Your task to perform on an android device: What's the latest video from GameSpot Trailers? Image 0: 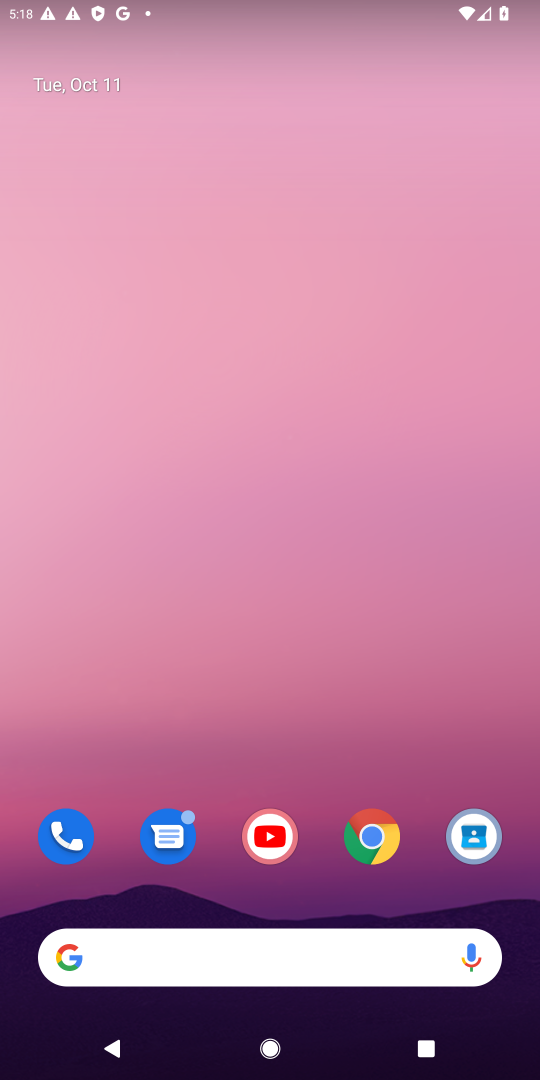
Step 0: click (378, 828)
Your task to perform on an android device: What's the latest video from GameSpot Trailers? Image 1: 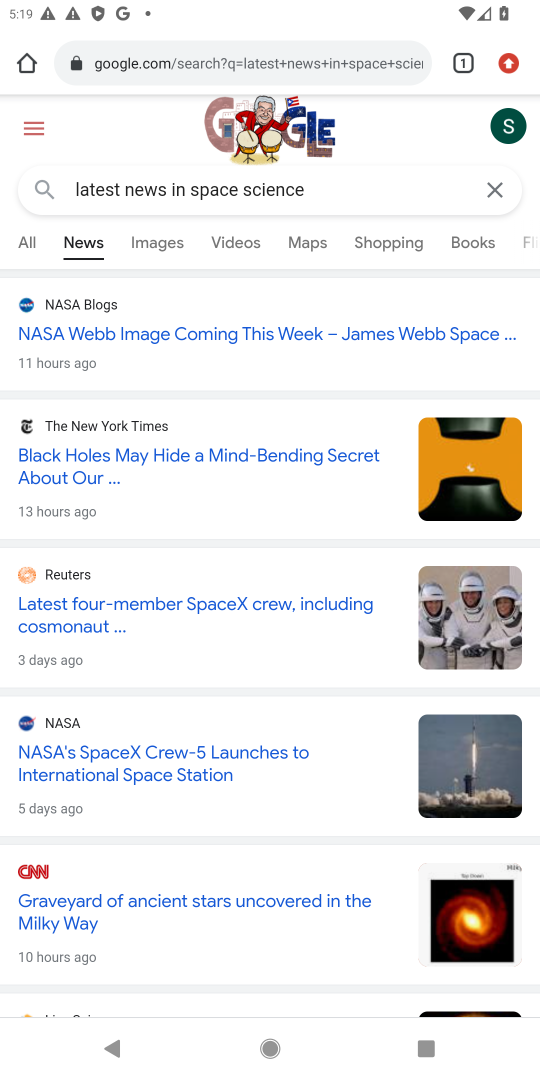
Step 1: click (364, 63)
Your task to perform on an android device: What's the latest video from GameSpot Trailers? Image 2: 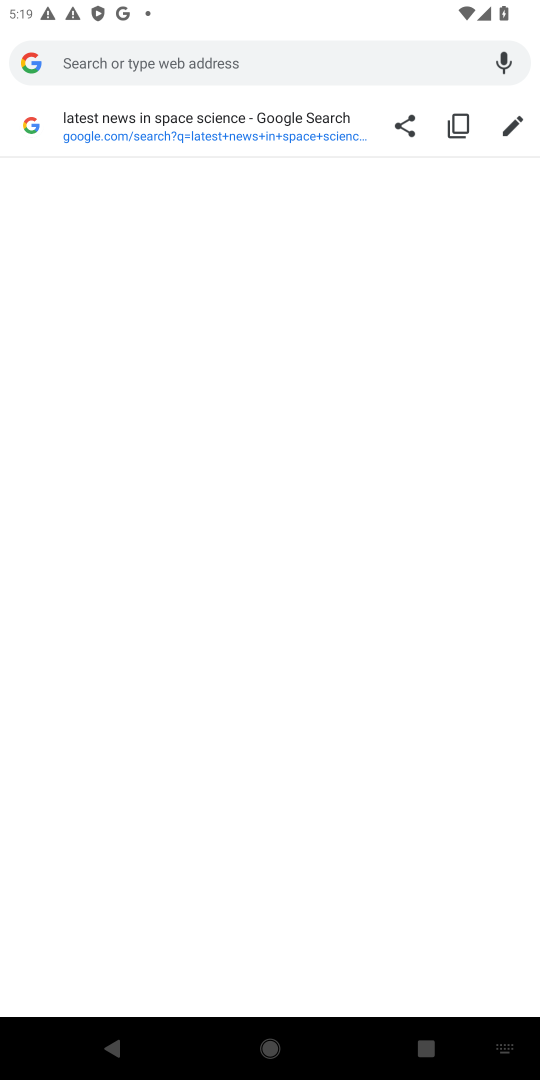
Step 2: type "latest video from GameSpot Trailers"
Your task to perform on an android device: What's the latest video from GameSpot Trailers? Image 3: 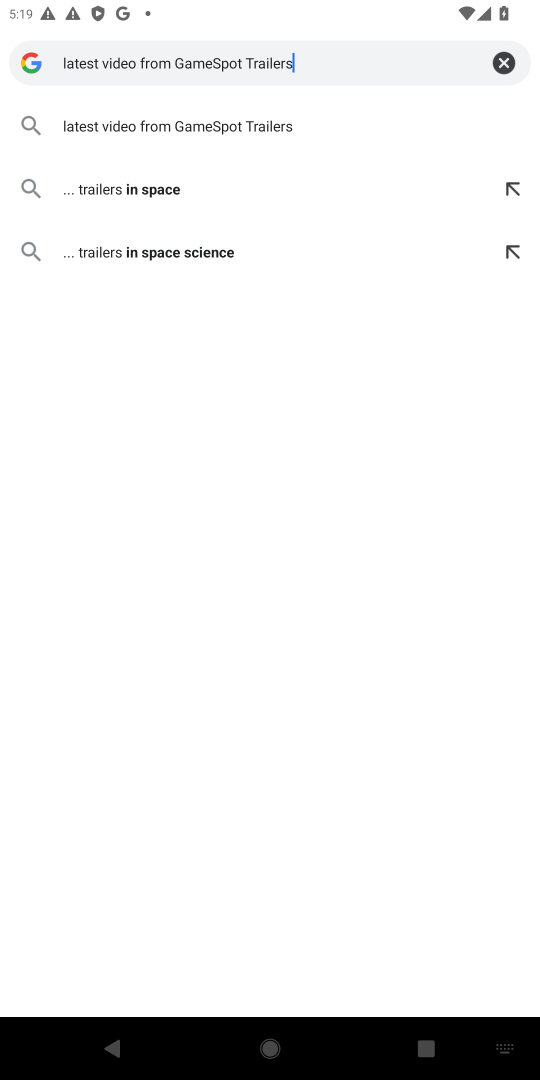
Step 3: click (253, 127)
Your task to perform on an android device: What's the latest video from GameSpot Trailers? Image 4: 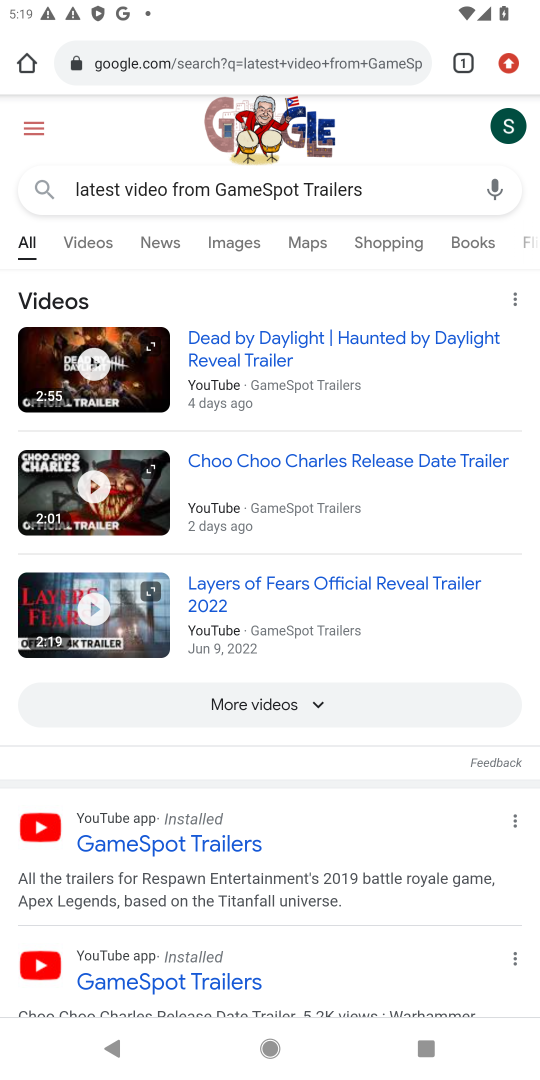
Step 4: click (97, 368)
Your task to perform on an android device: What's the latest video from GameSpot Trailers? Image 5: 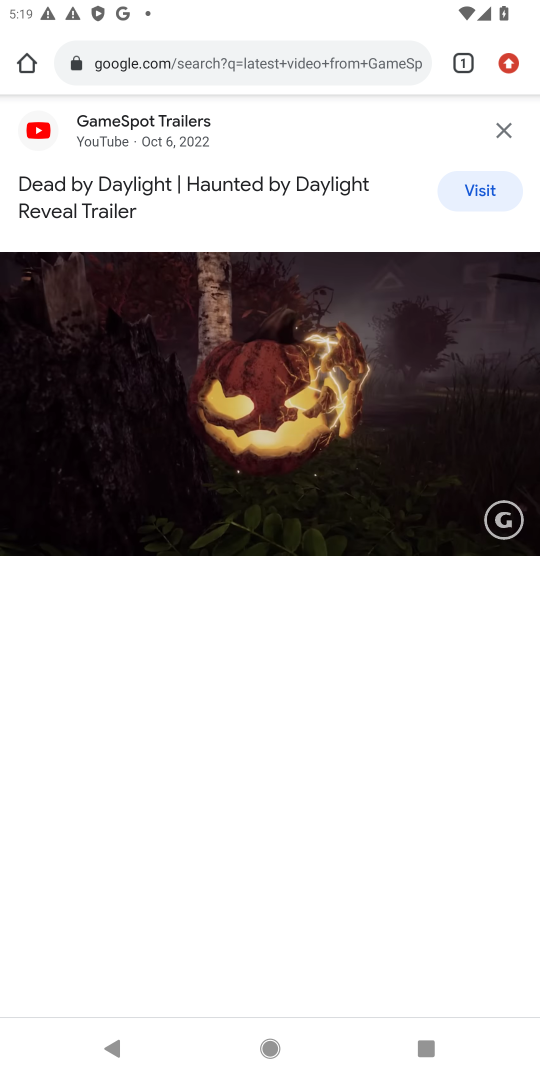
Step 5: click (282, 391)
Your task to perform on an android device: What's the latest video from GameSpot Trailers? Image 6: 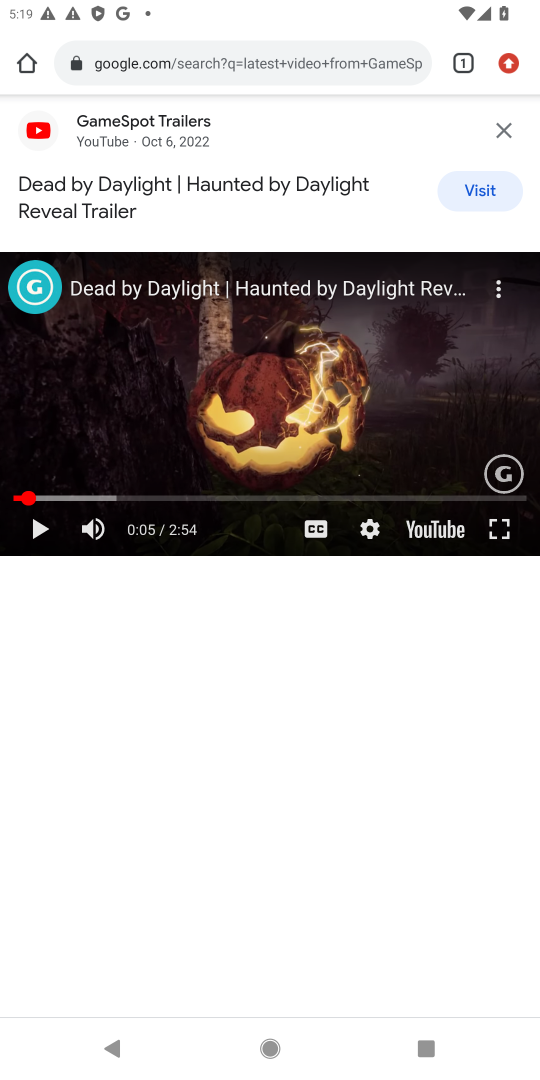
Step 6: click (283, 376)
Your task to perform on an android device: What's the latest video from GameSpot Trailers? Image 7: 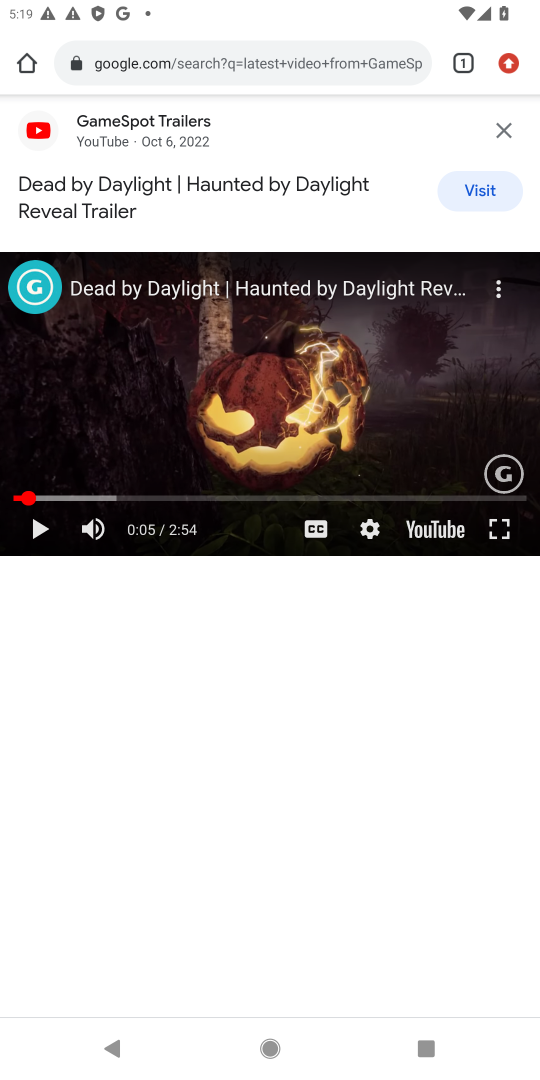
Step 7: click (50, 528)
Your task to perform on an android device: What's the latest video from GameSpot Trailers? Image 8: 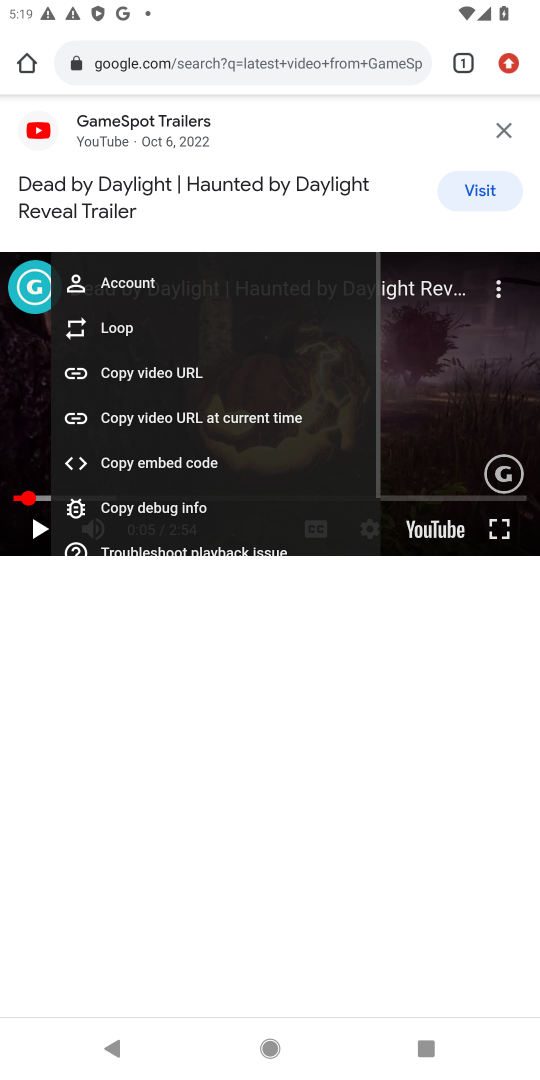
Step 8: click (420, 386)
Your task to perform on an android device: What's the latest video from GameSpot Trailers? Image 9: 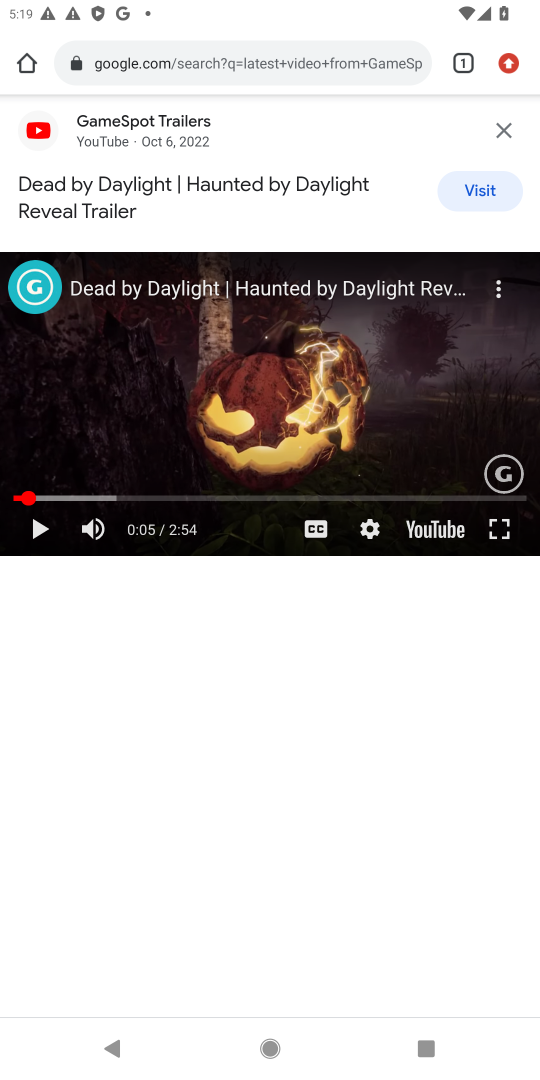
Step 9: click (419, 396)
Your task to perform on an android device: What's the latest video from GameSpot Trailers? Image 10: 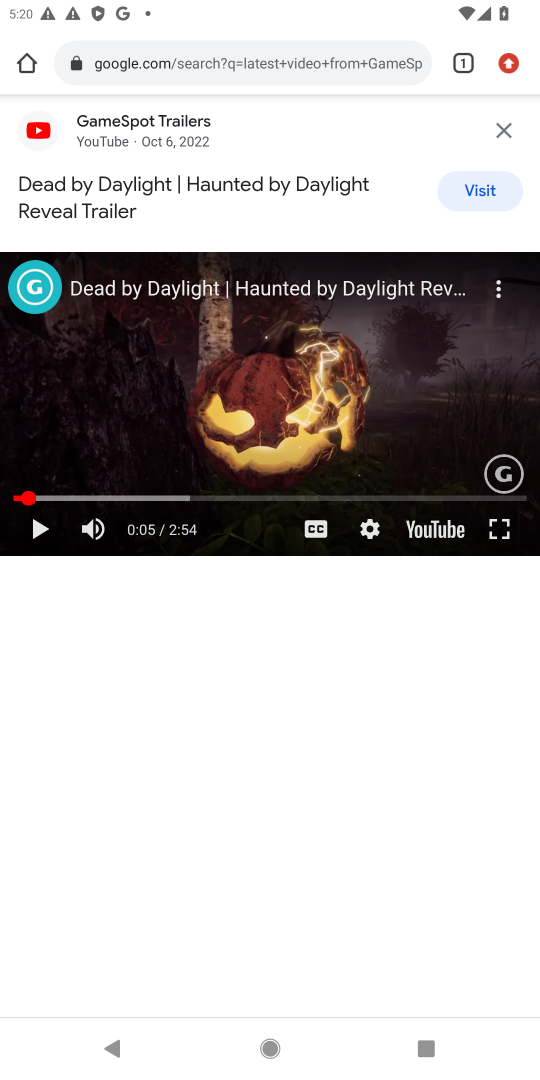
Step 10: click (260, 396)
Your task to perform on an android device: What's the latest video from GameSpot Trailers? Image 11: 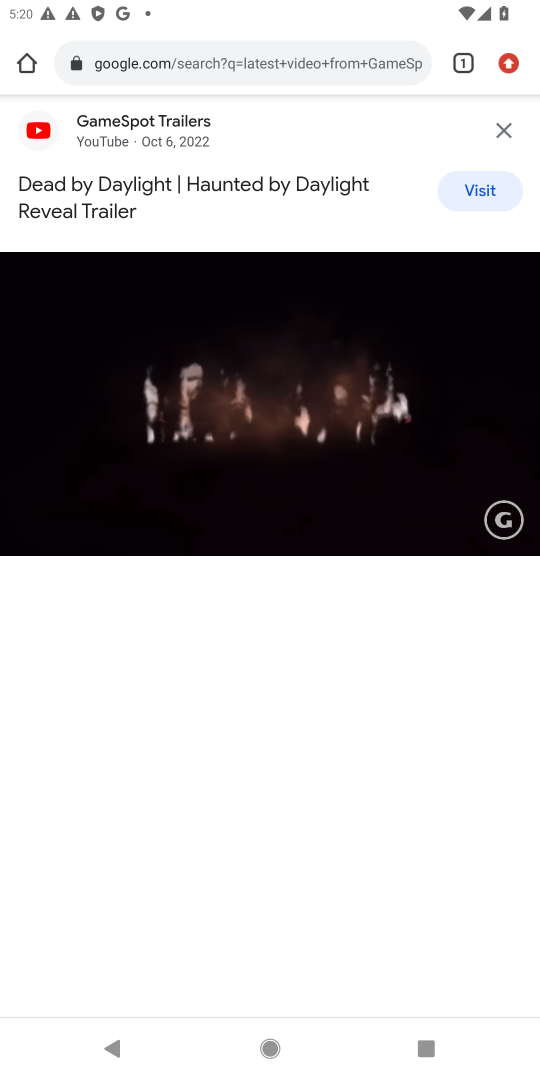
Step 11: click (278, 362)
Your task to perform on an android device: What's the latest video from GameSpot Trailers? Image 12: 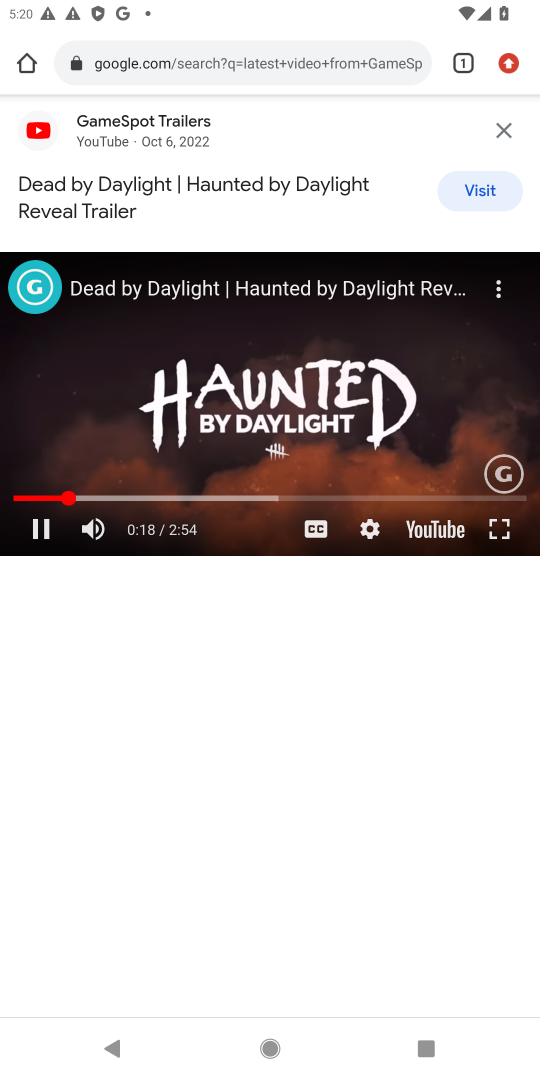
Step 12: click (284, 398)
Your task to perform on an android device: What's the latest video from GameSpot Trailers? Image 13: 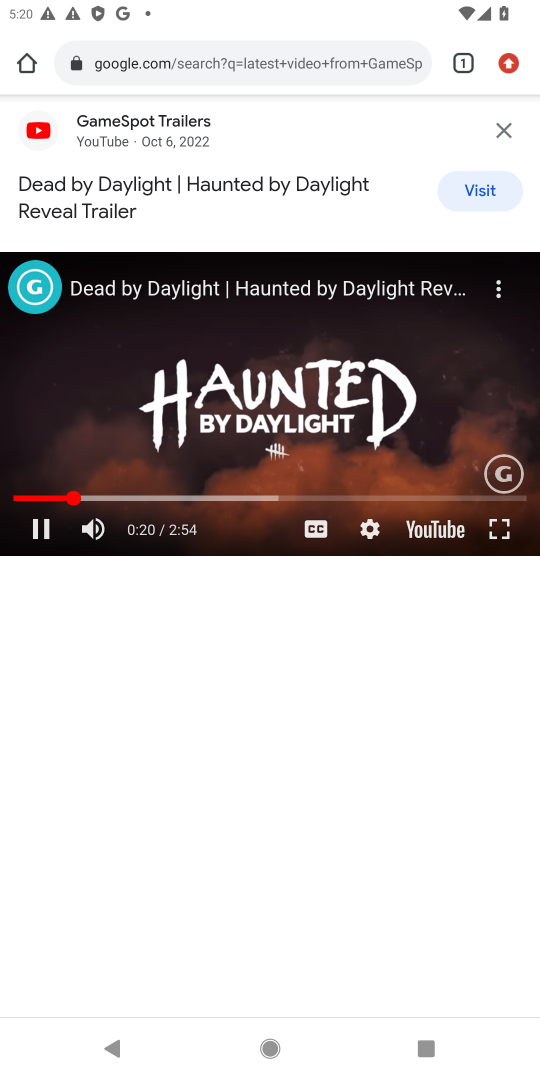
Step 13: click (271, 404)
Your task to perform on an android device: What's the latest video from GameSpot Trailers? Image 14: 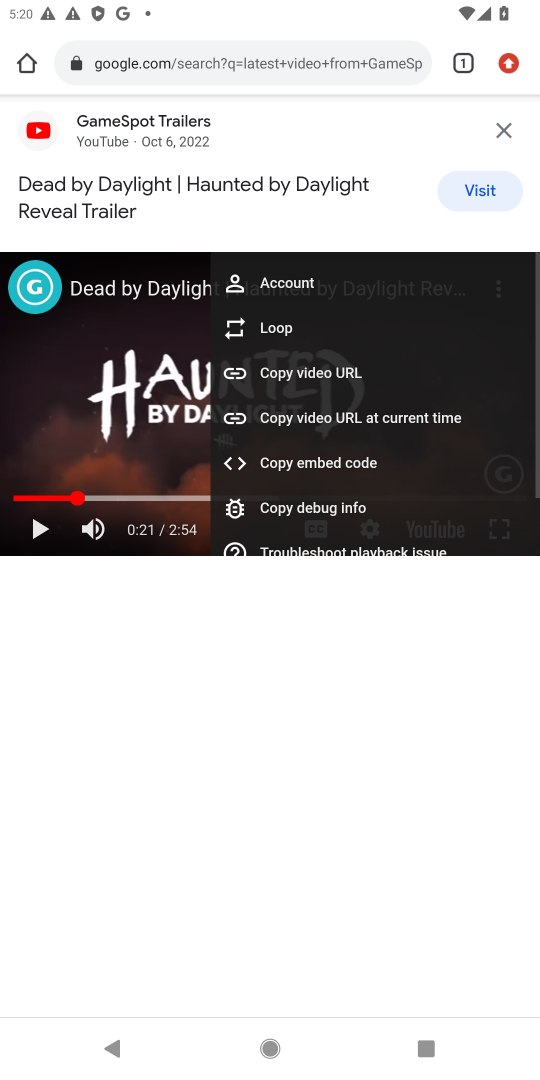
Step 14: click (180, 409)
Your task to perform on an android device: What's the latest video from GameSpot Trailers? Image 15: 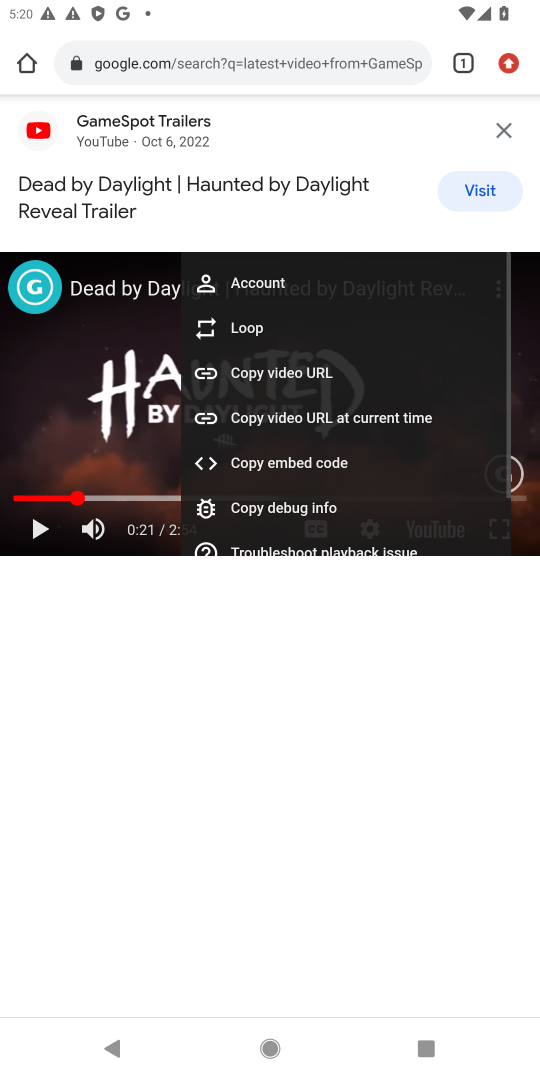
Step 15: click (202, 398)
Your task to perform on an android device: What's the latest video from GameSpot Trailers? Image 16: 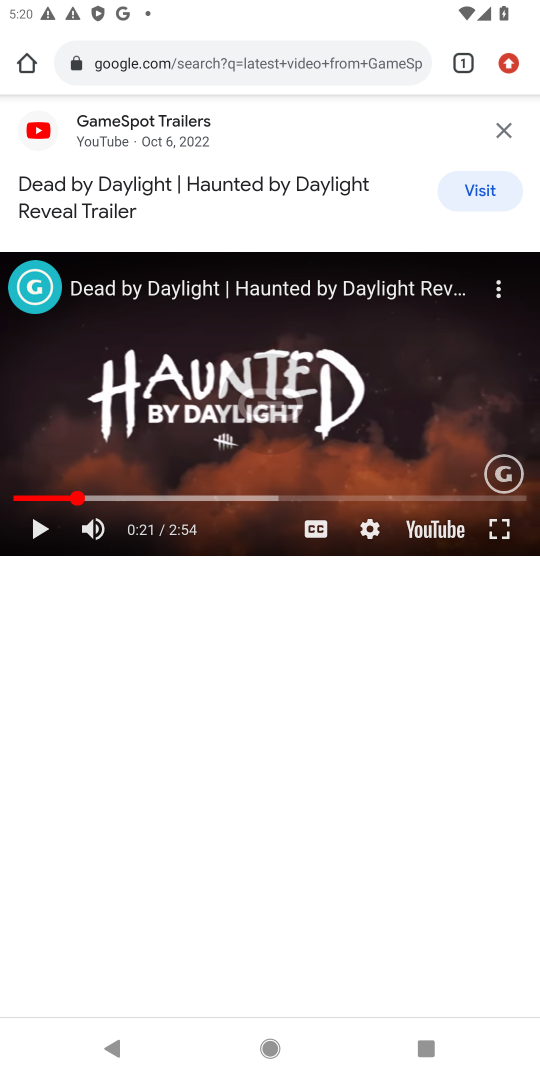
Step 16: click (35, 523)
Your task to perform on an android device: What's the latest video from GameSpot Trailers? Image 17: 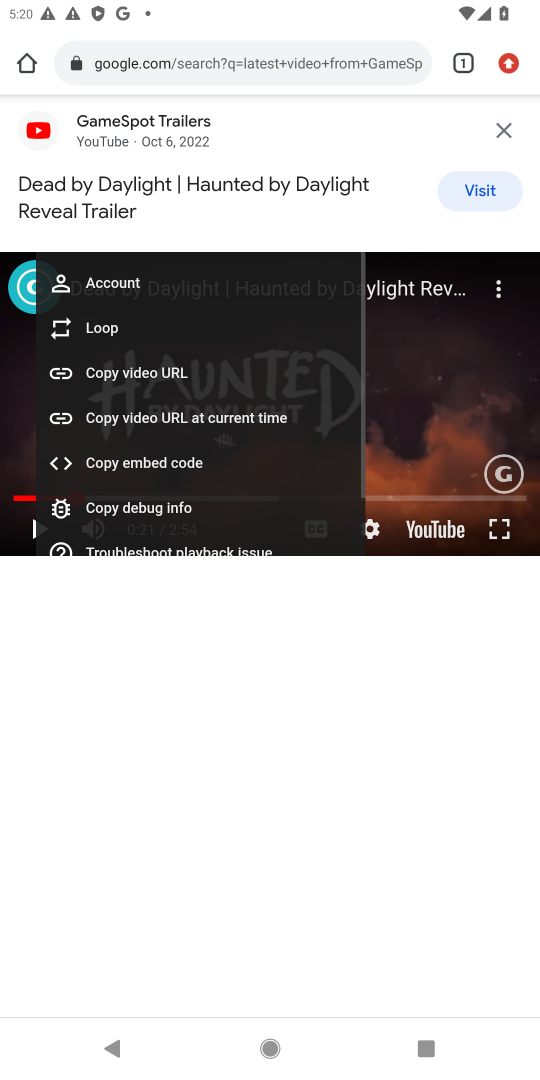
Step 17: click (477, 402)
Your task to perform on an android device: What's the latest video from GameSpot Trailers? Image 18: 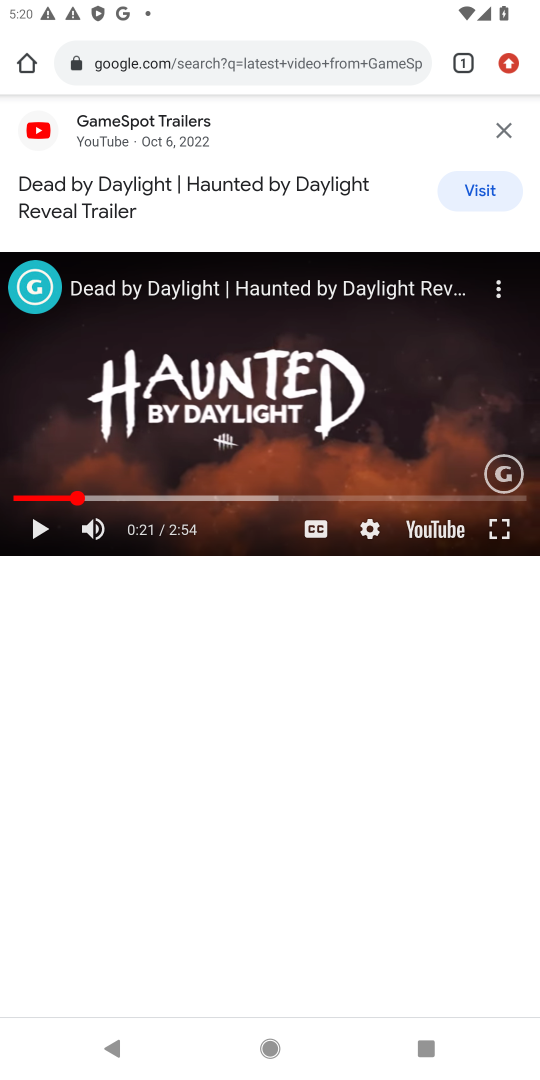
Step 18: task complete